Your task to perform on an android device: turn on priority inbox in the gmail app Image 0: 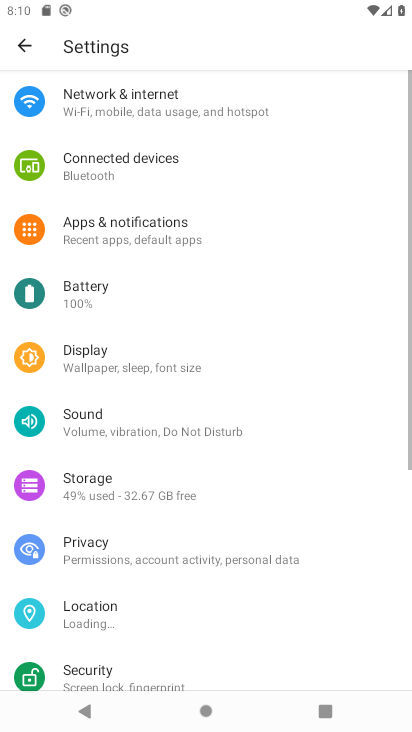
Step 0: press home button
Your task to perform on an android device: turn on priority inbox in the gmail app Image 1: 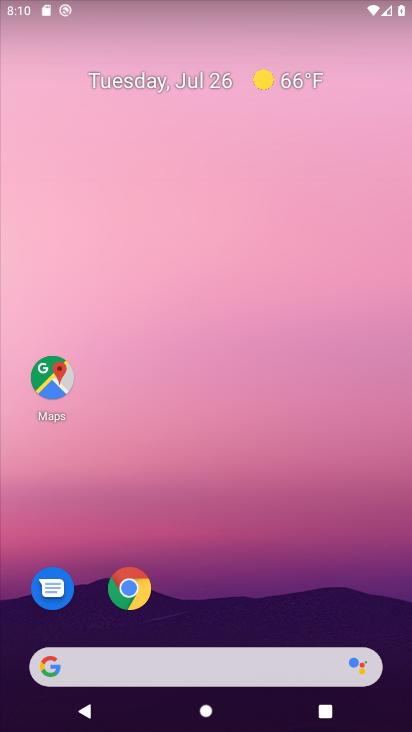
Step 1: drag from (239, 720) to (248, 279)
Your task to perform on an android device: turn on priority inbox in the gmail app Image 2: 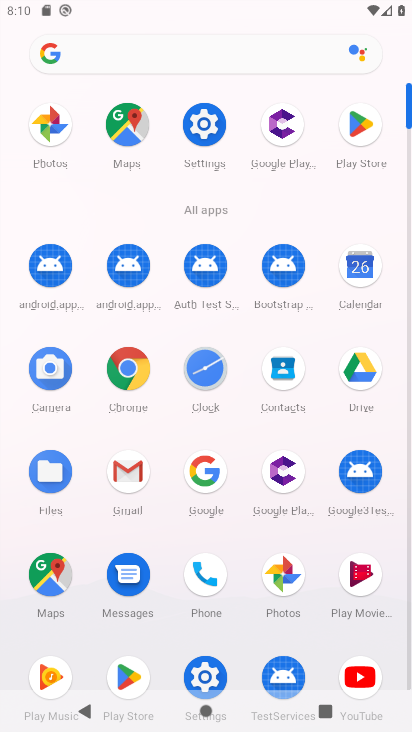
Step 2: click (131, 478)
Your task to perform on an android device: turn on priority inbox in the gmail app Image 3: 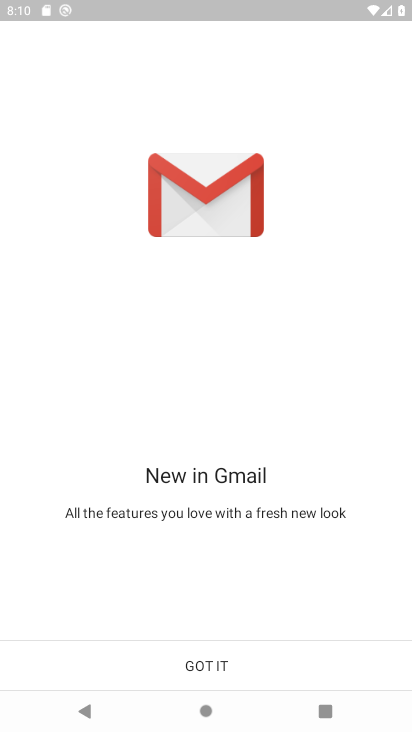
Step 3: click (196, 666)
Your task to perform on an android device: turn on priority inbox in the gmail app Image 4: 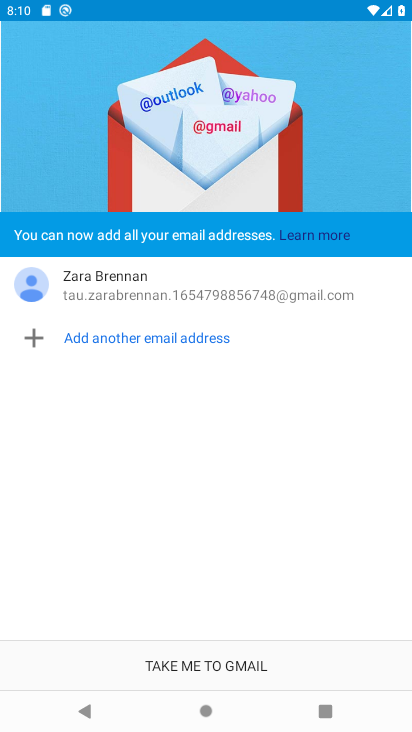
Step 4: click (173, 663)
Your task to perform on an android device: turn on priority inbox in the gmail app Image 5: 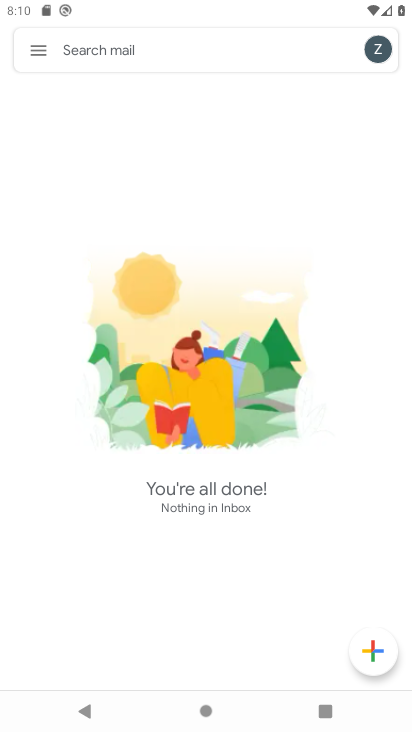
Step 5: click (38, 46)
Your task to perform on an android device: turn on priority inbox in the gmail app Image 6: 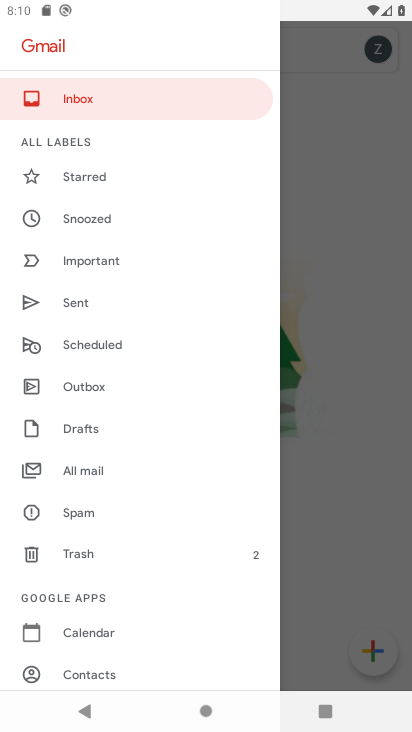
Step 6: drag from (179, 646) to (178, 444)
Your task to perform on an android device: turn on priority inbox in the gmail app Image 7: 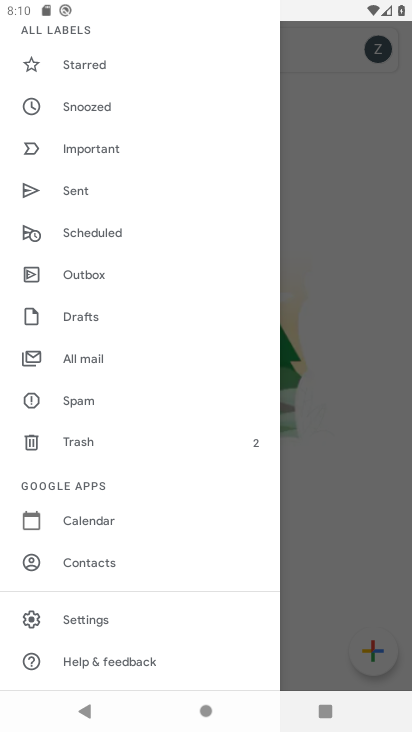
Step 7: click (90, 627)
Your task to perform on an android device: turn on priority inbox in the gmail app Image 8: 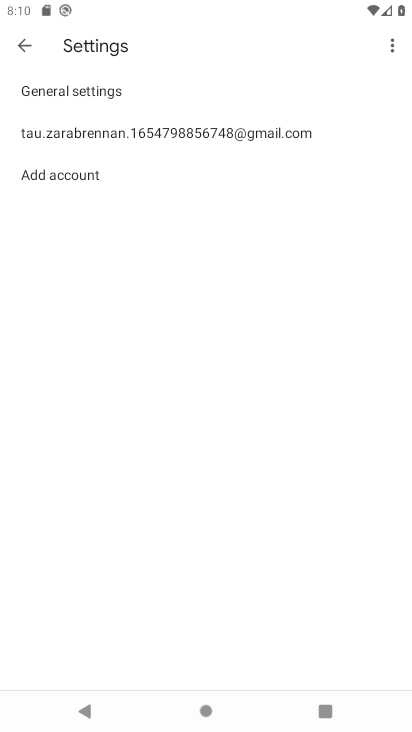
Step 8: click (110, 133)
Your task to perform on an android device: turn on priority inbox in the gmail app Image 9: 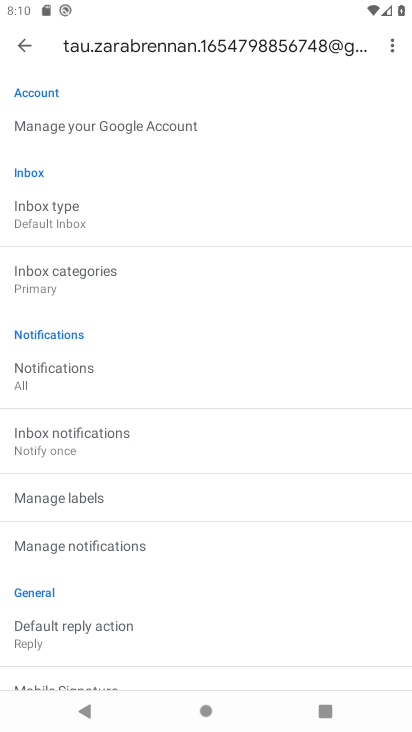
Step 9: click (36, 217)
Your task to perform on an android device: turn on priority inbox in the gmail app Image 10: 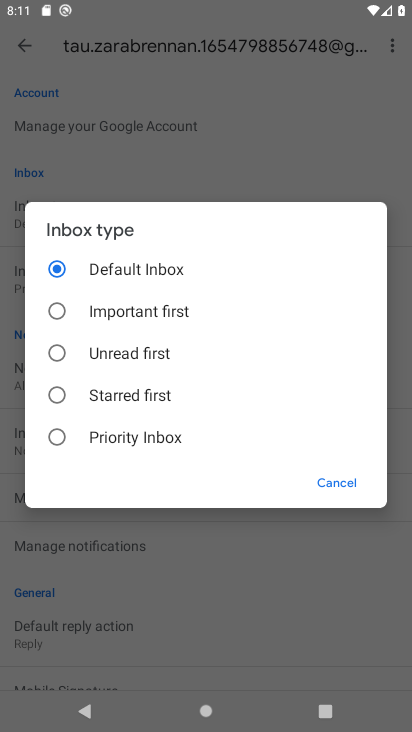
Step 10: click (60, 430)
Your task to perform on an android device: turn on priority inbox in the gmail app Image 11: 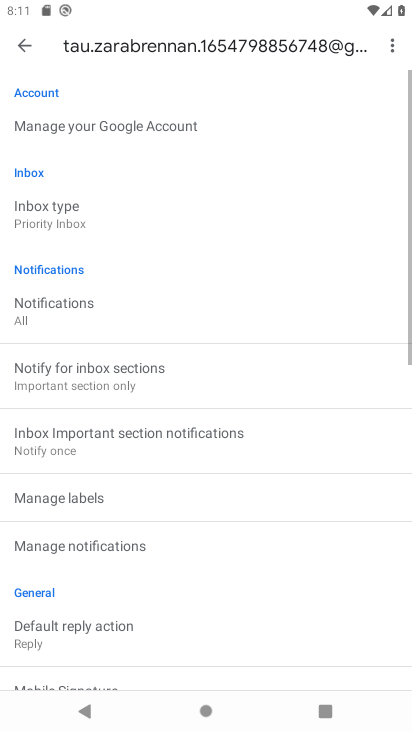
Step 11: task complete